Your task to perform on an android device: Open CNN.com Image 0: 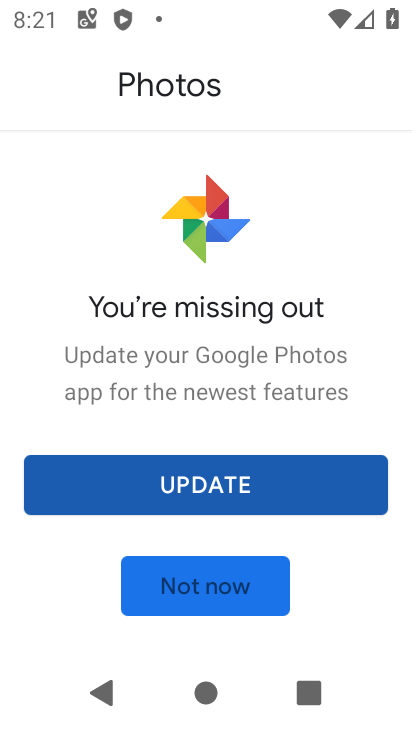
Step 0: press home button
Your task to perform on an android device: Open CNN.com Image 1: 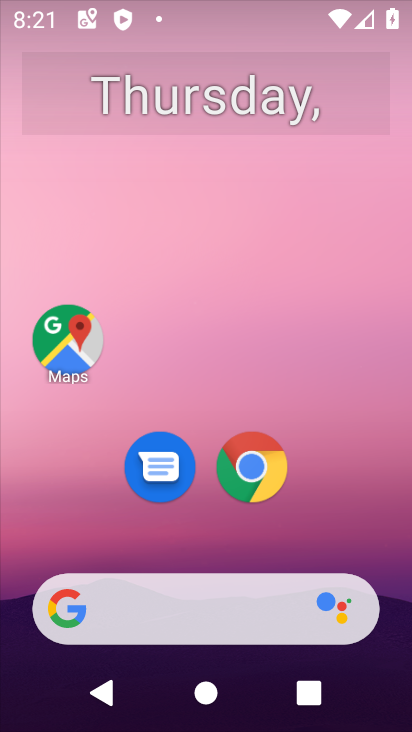
Step 1: drag from (337, 536) to (340, 260)
Your task to perform on an android device: Open CNN.com Image 2: 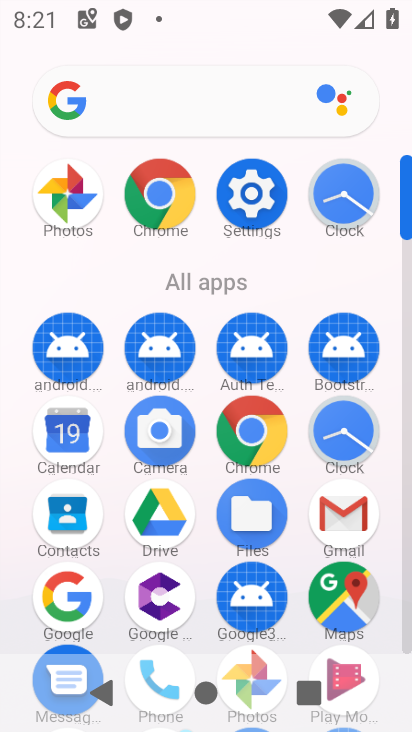
Step 2: click (167, 194)
Your task to perform on an android device: Open CNN.com Image 3: 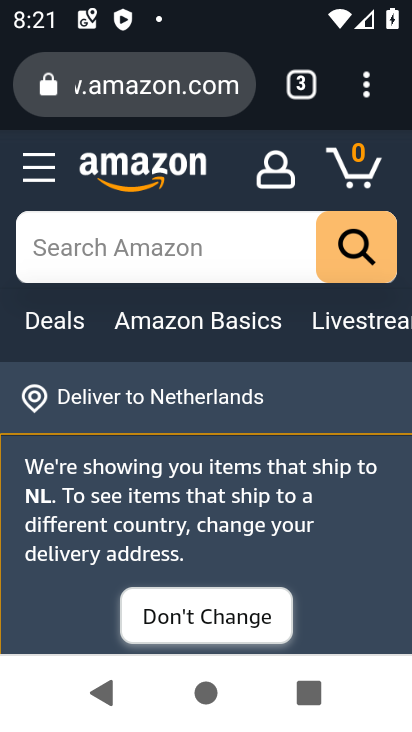
Step 3: click (364, 87)
Your task to perform on an android device: Open CNN.com Image 4: 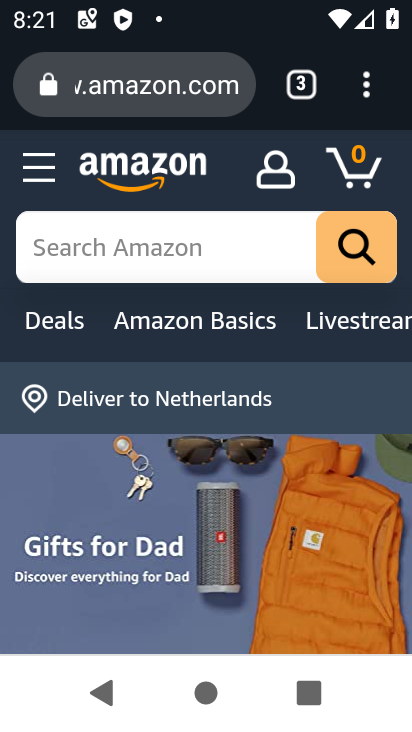
Step 4: click (382, 67)
Your task to perform on an android device: Open CNN.com Image 5: 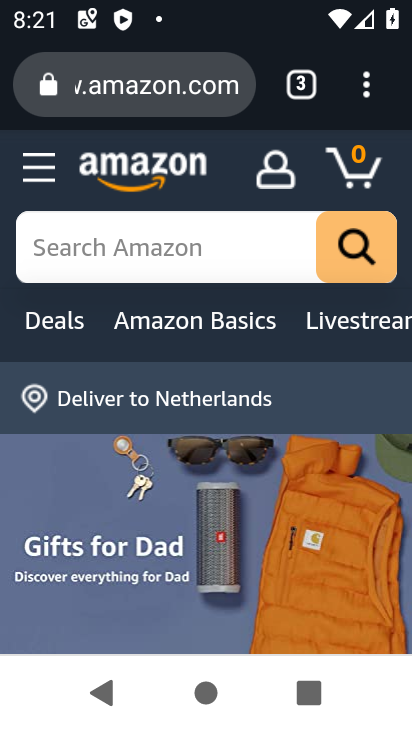
Step 5: click (371, 88)
Your task to perform on an android device: Open CNN.com Image 6: 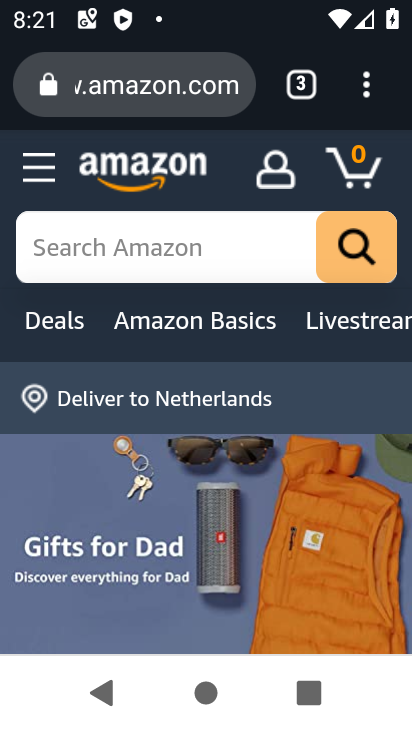
Step 6: click (394, 85)
Your task to perform on an android device: Open CNN.com Image 7: 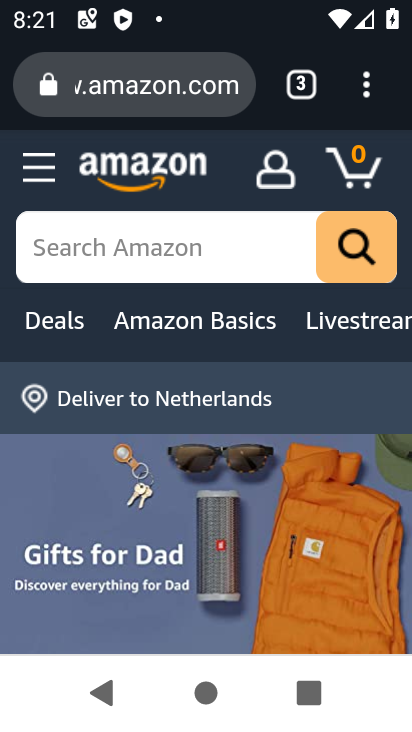
Step 7: click (385, 96)
Your task to perform on an android device: Open CNN.com Image 8: 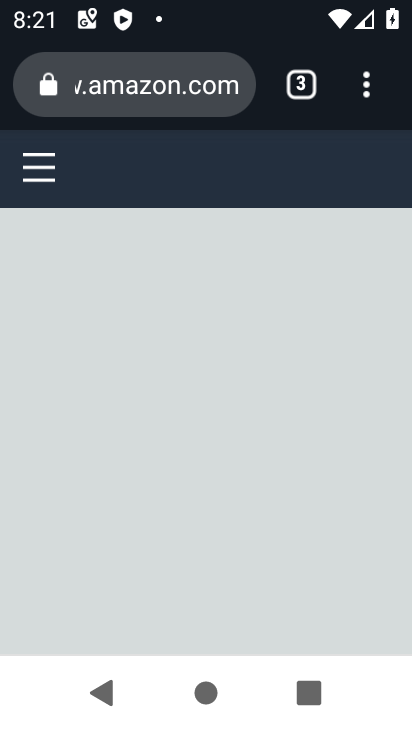
Step 8: click (362, 99)
Your task to perform on an android device: Open CNN.com Image 9: 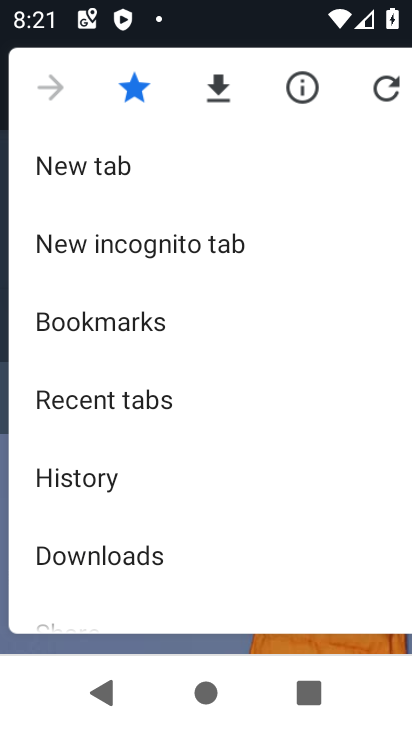
Step 9: click (130, 171)
Your task to perform on an android device: Open CNN.com Image 10: 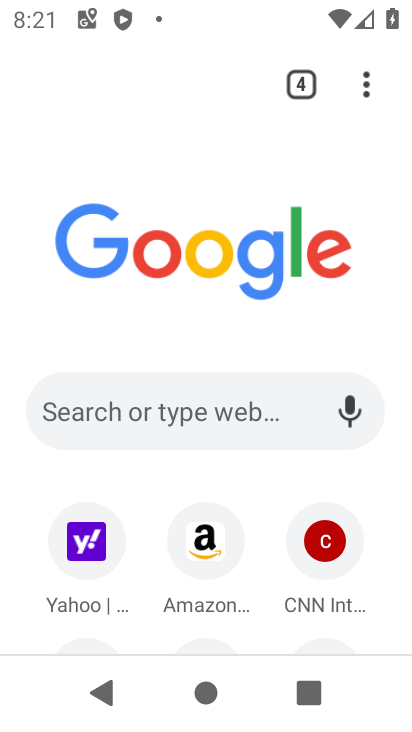
Step 10: click (135, 407)
Your task to perform on an android device: Open CNN.com Image 11: 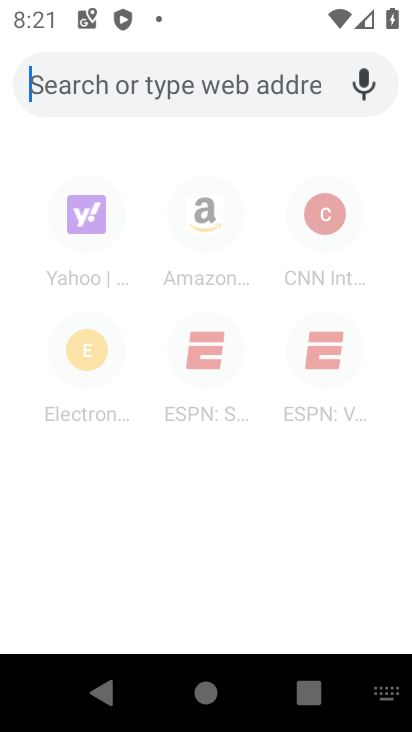
Step 11: type "CNN.com"
Your task to perform on an android device: Open CNN.com Image 12: 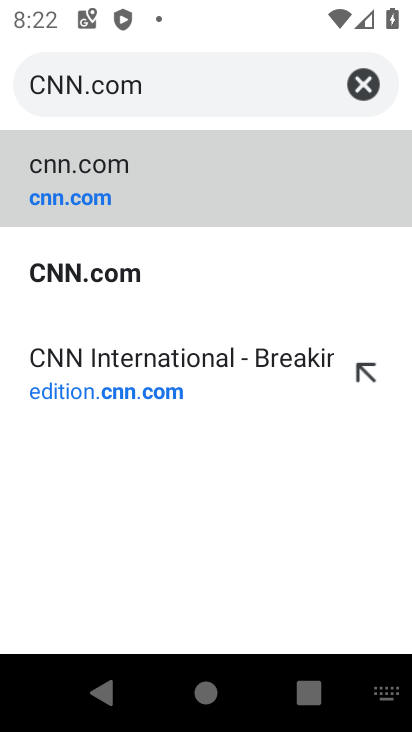
Step 12: click (196, 180)
Your task to perform on an android device: Open CNN.com Image 13: 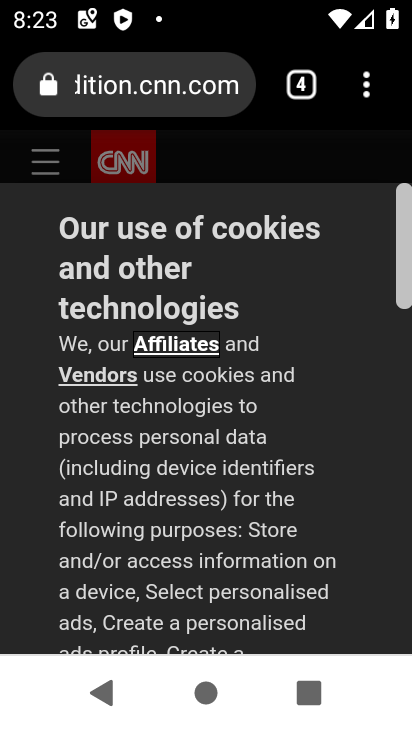
Step 13: task complete